Your task to perform on an android device: Open Reddit.com Image 0: 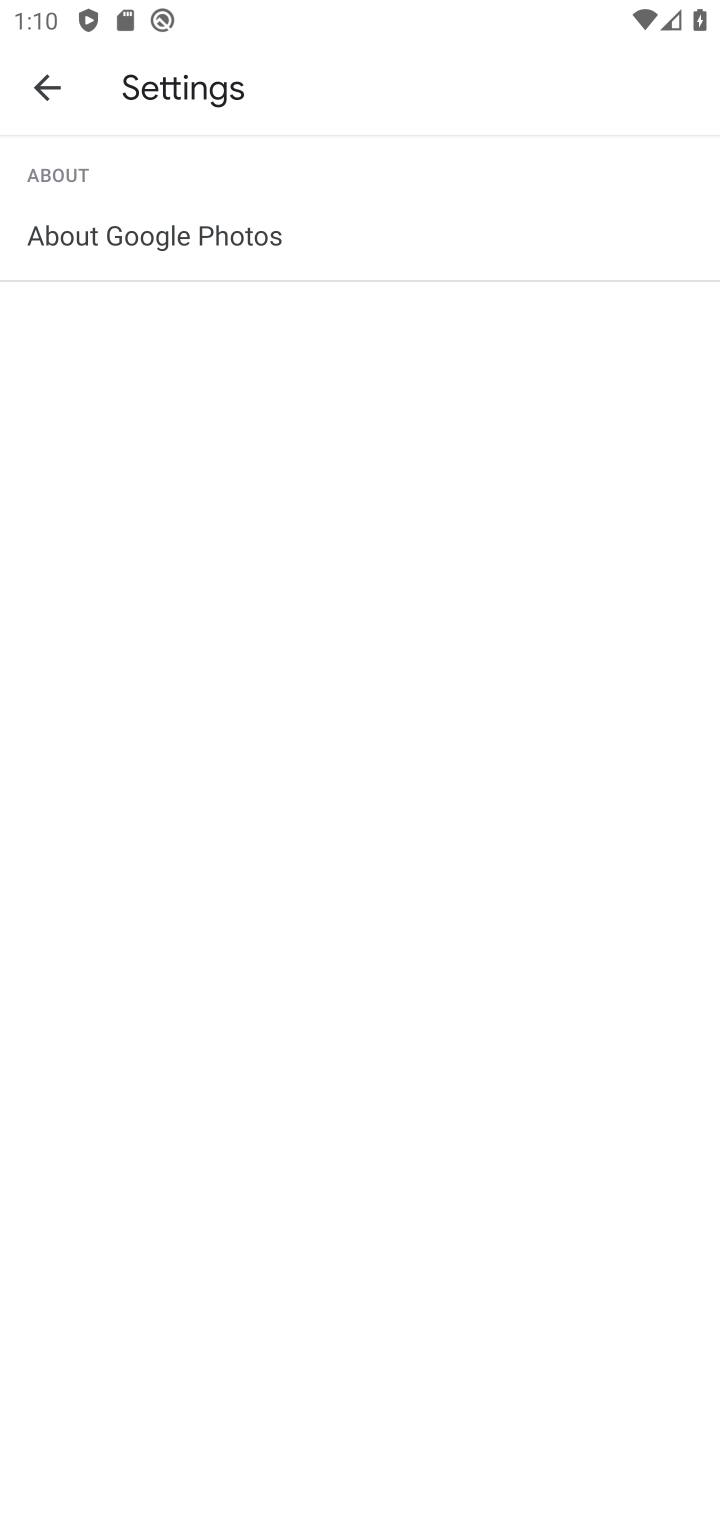
Step 0: press home button
Your task to perform on an android device: Open Reddit.com Image 1: 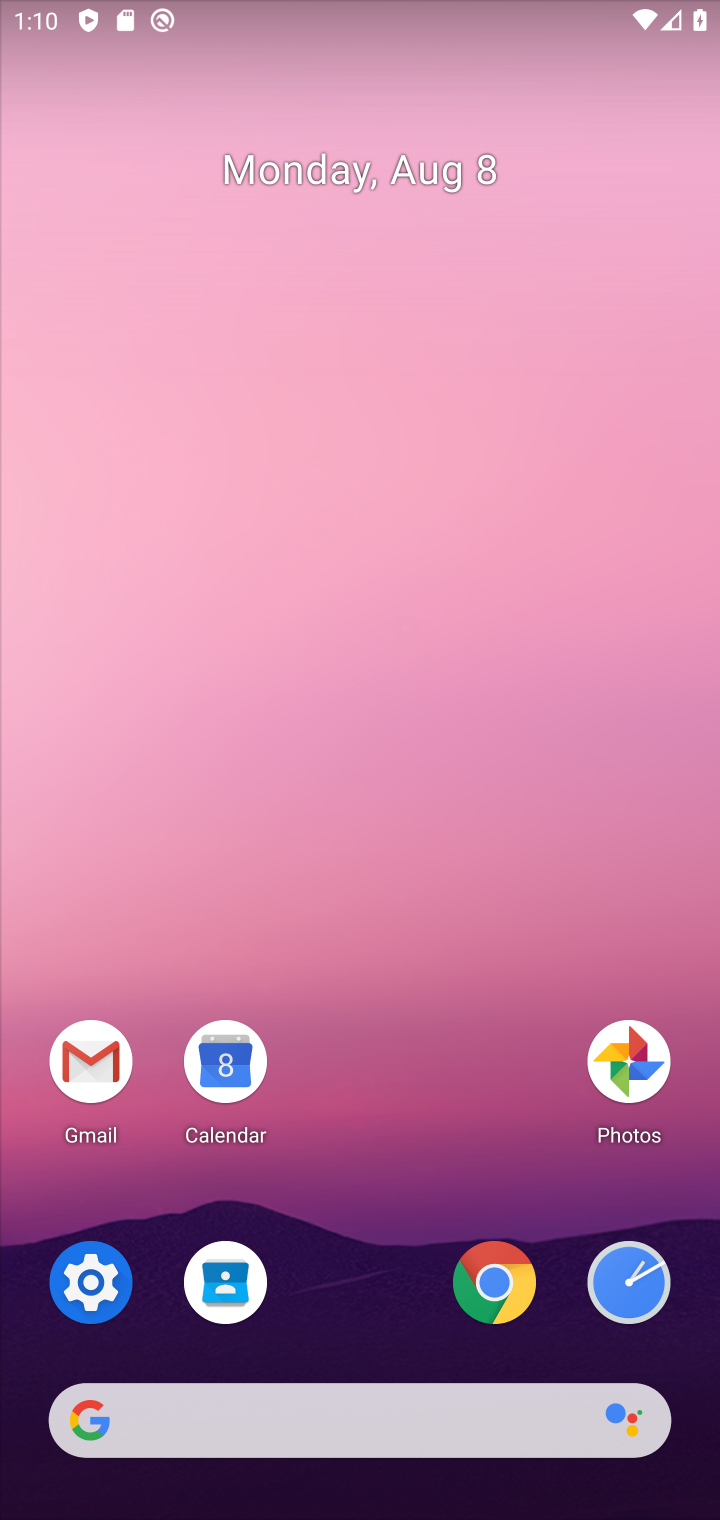
Step 1: click (492, 1270)
Your task to perform on an android device: Open Reddit.com Image 2: 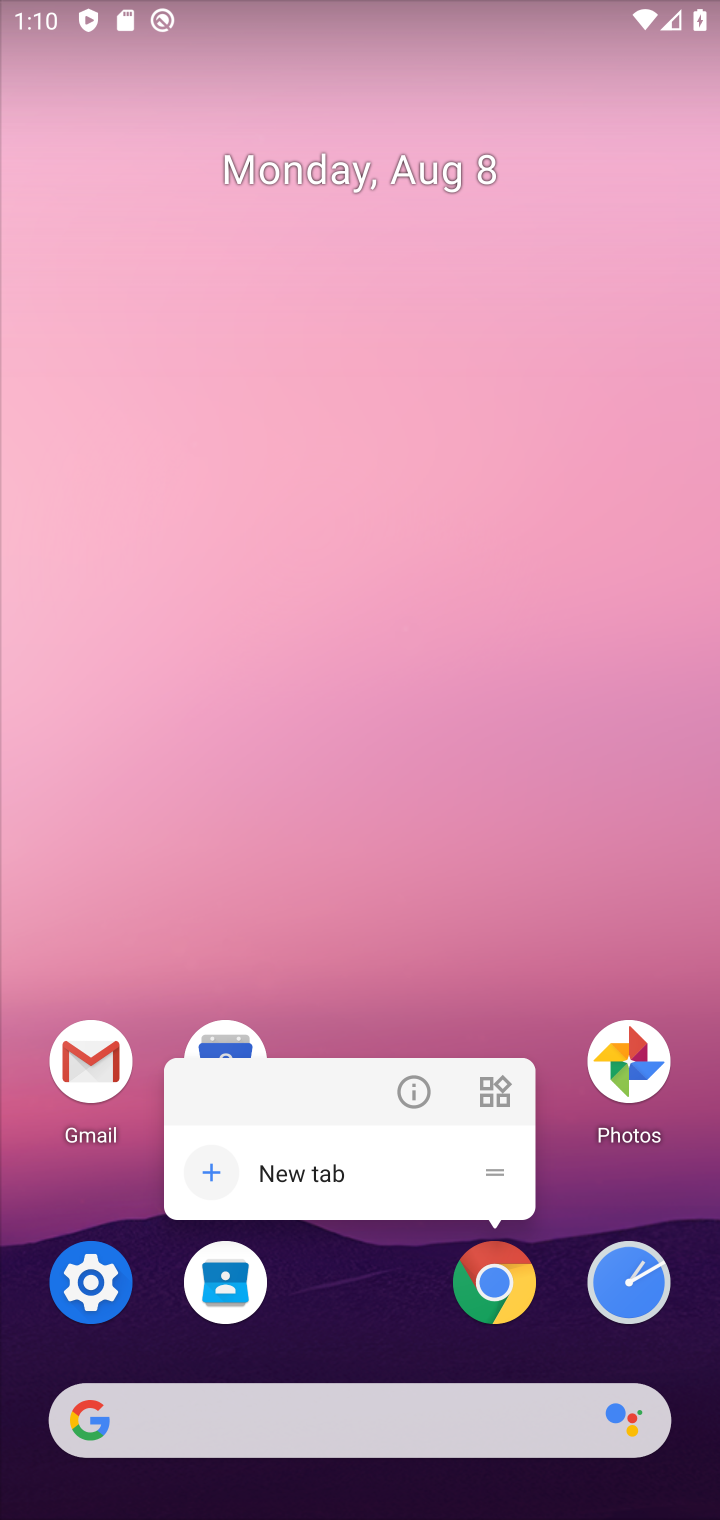
Step 2: click (503, 1299)
Your task to perform on an android device: Open Reddit.com Image 3: 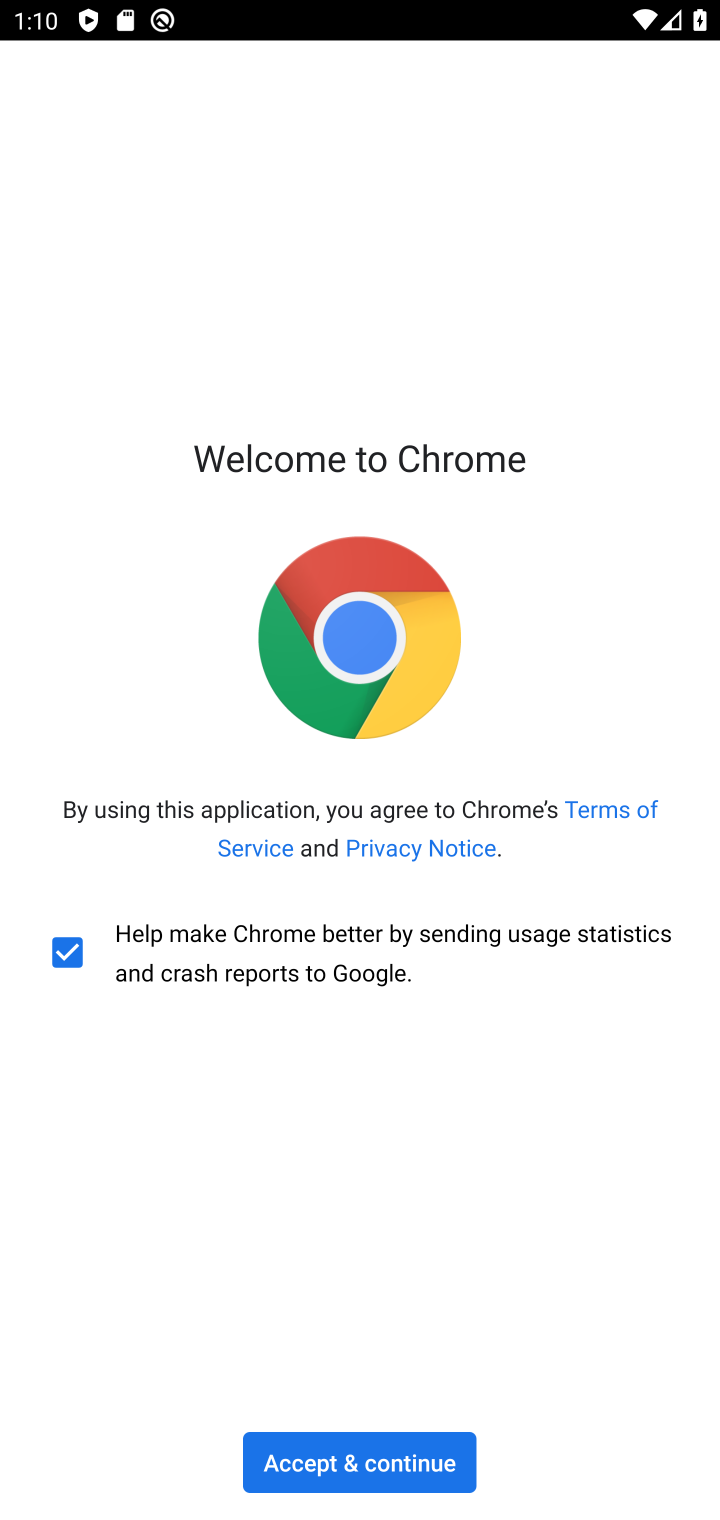
Step 3: click (338, 1448)
Your task to perform on an android device: Open Reddit.com Image 4: 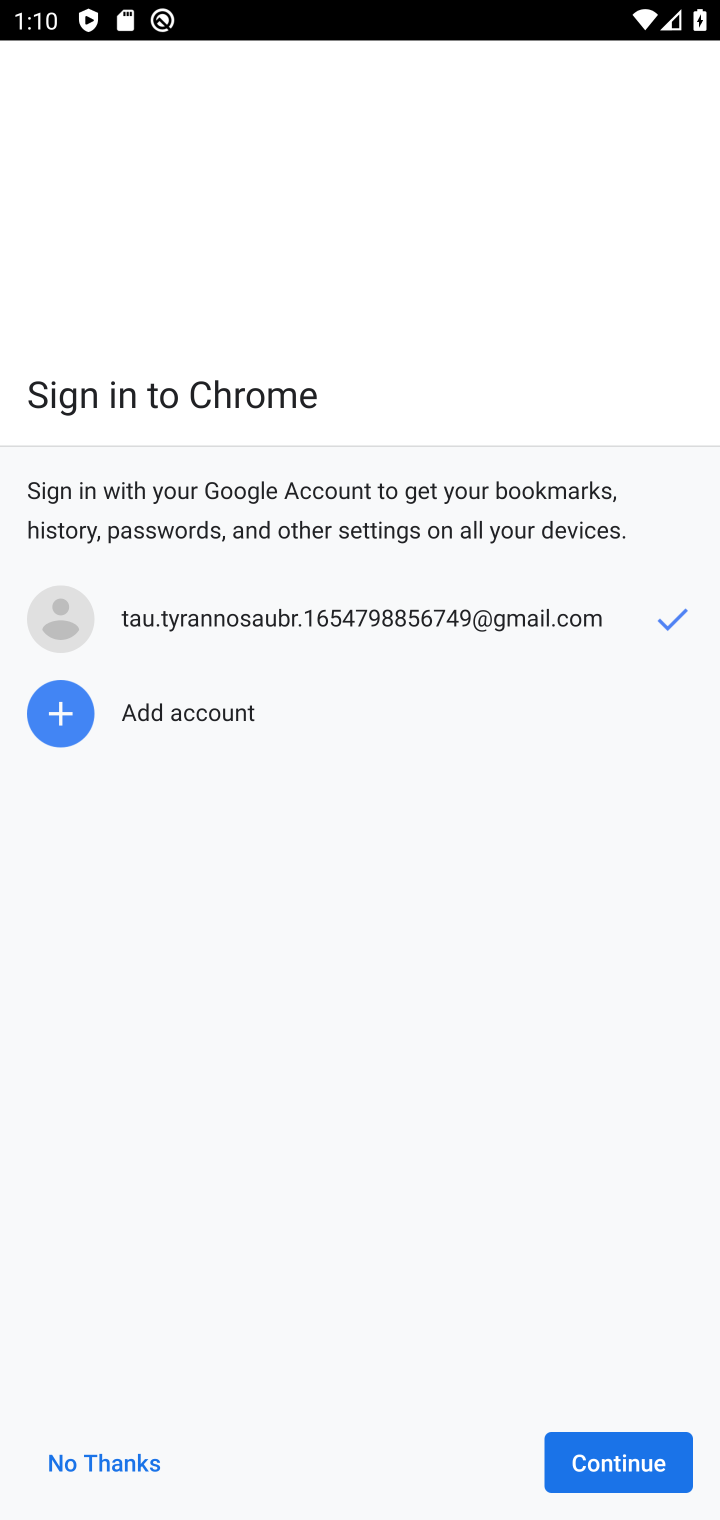
Step 4: click (640, 1460)
Your task to perform on an android device: Open Reddit.com Image 5: 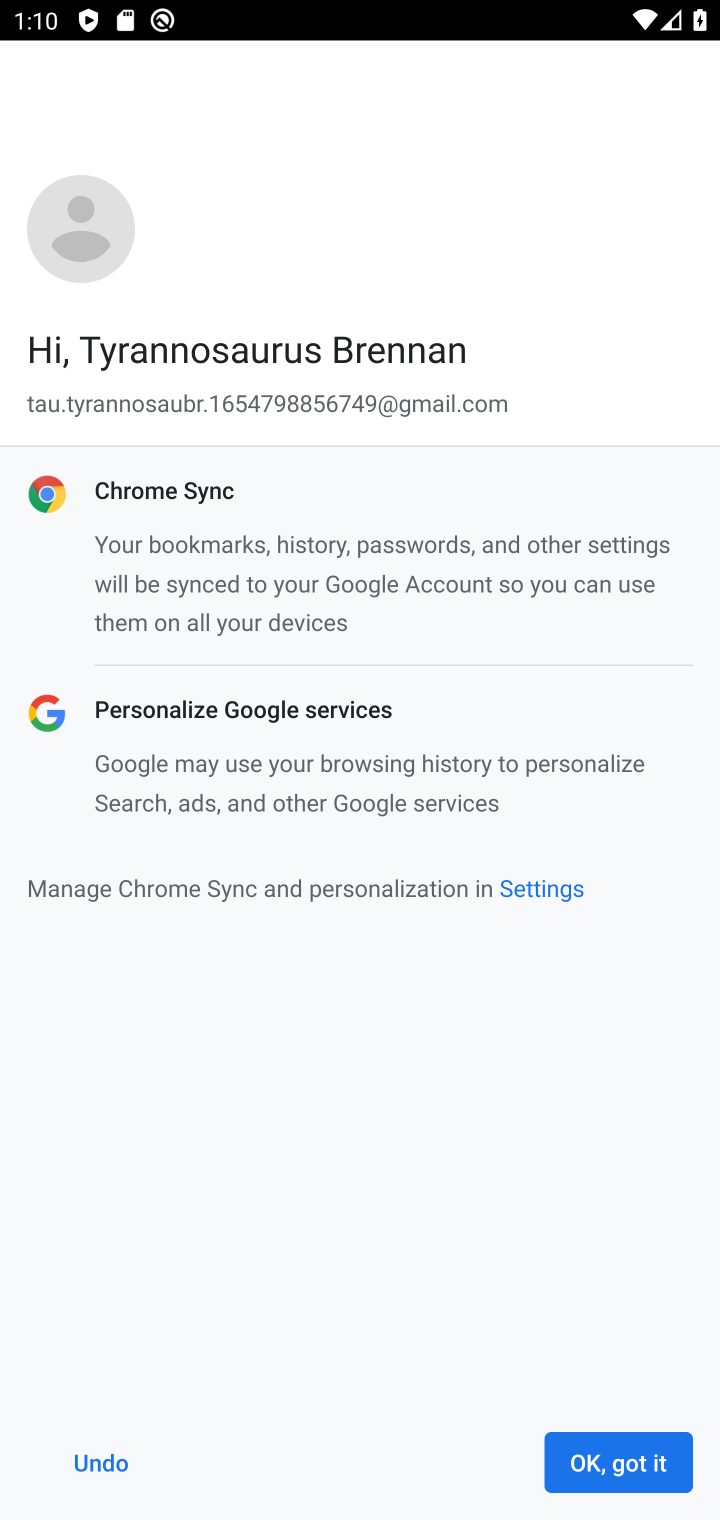
Step 5: click (633, 1456)
Your task to perform on an android device: Open Reddit.com Image 6: 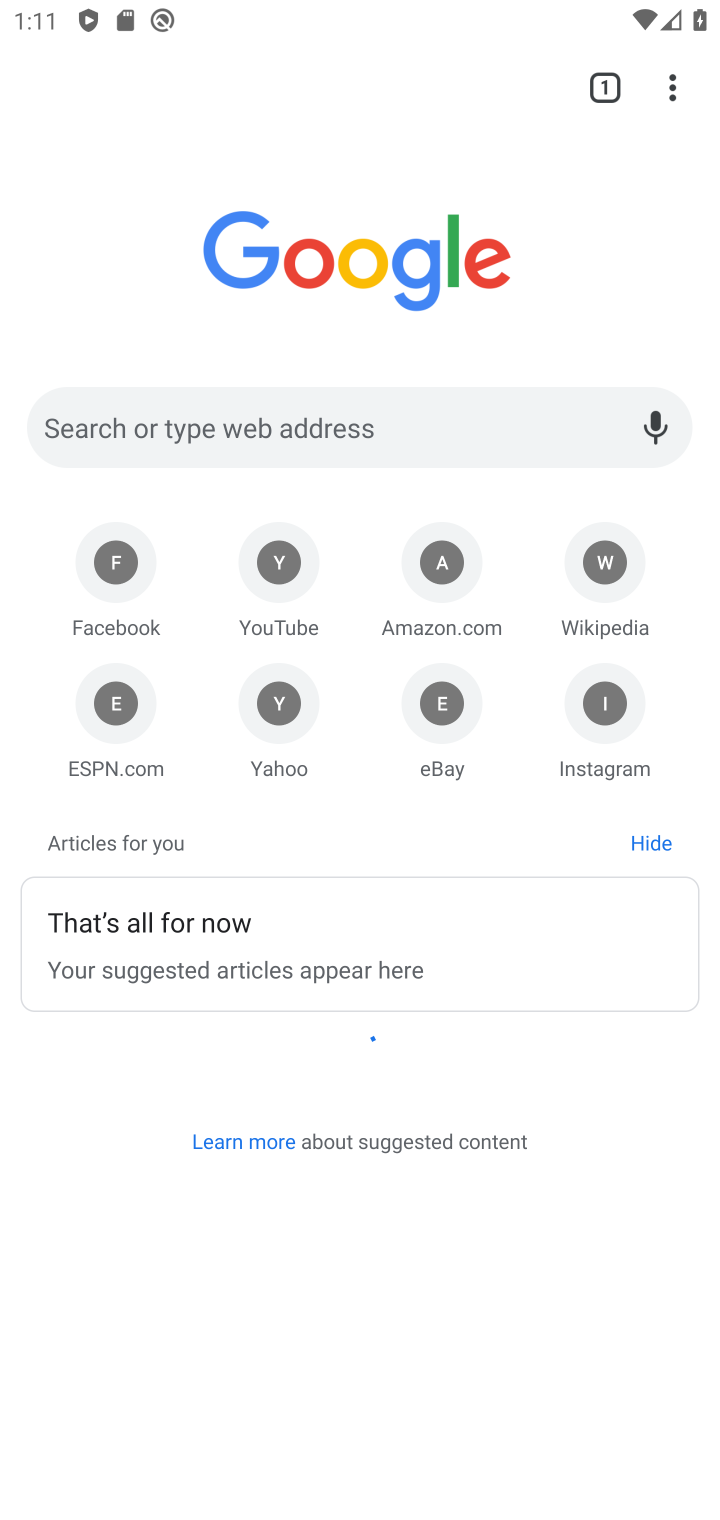
Step 6: click (337, 415)
Your task to perform on an android device: Open Reddit.com Image 7: 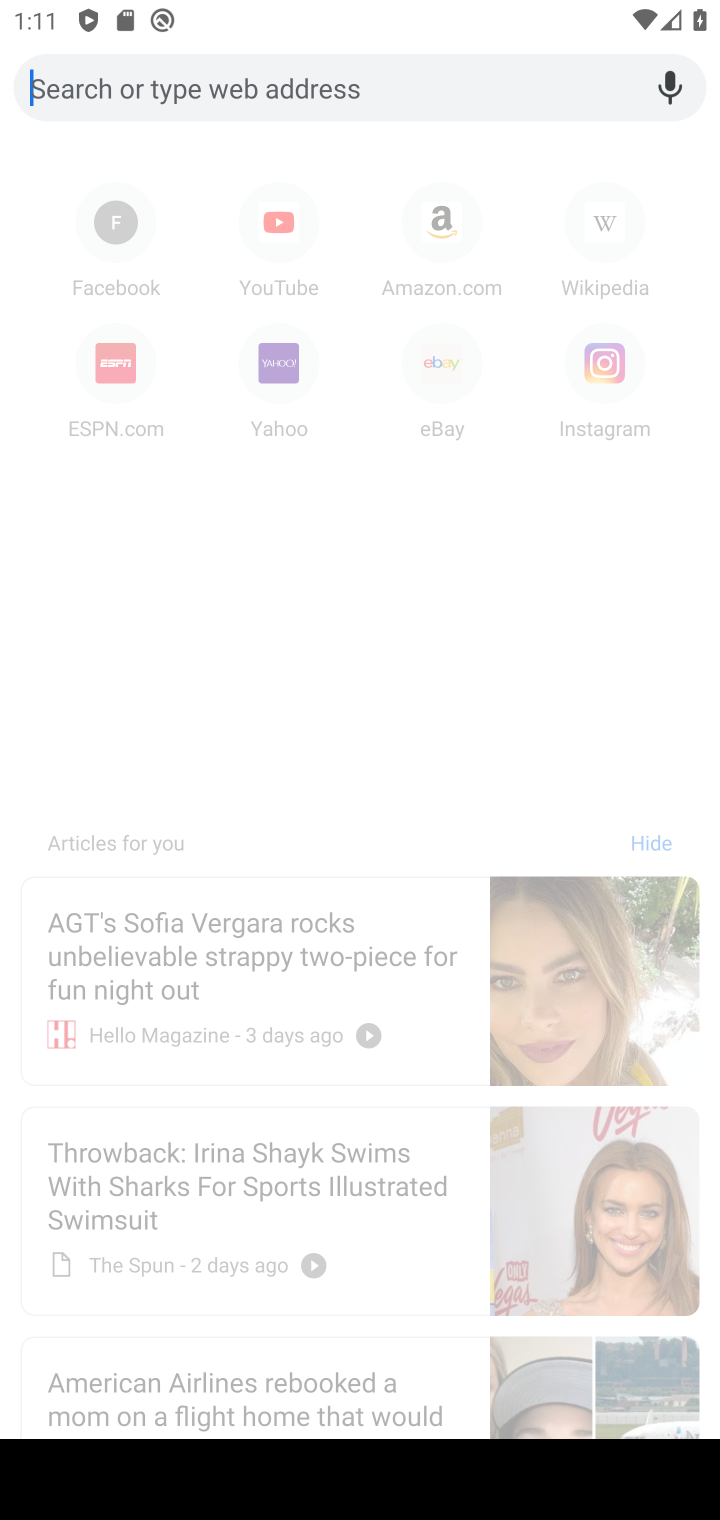
Step 7: type "reddit.com"
Your task to perform on an android device: Open Reddit.com Image 8: 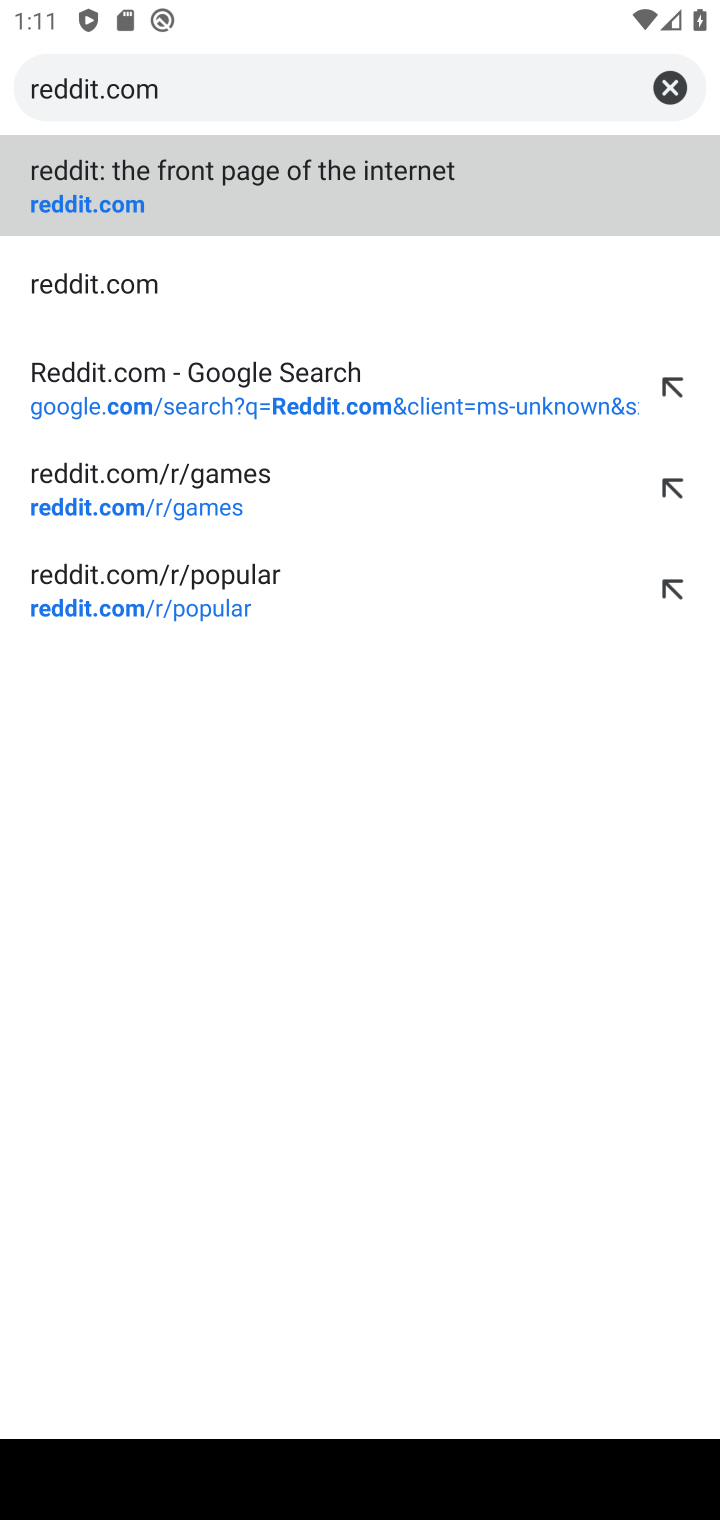
Step 8: click (170, 161)
Your task to perform on an android device: Open Reddit.com Image 9: 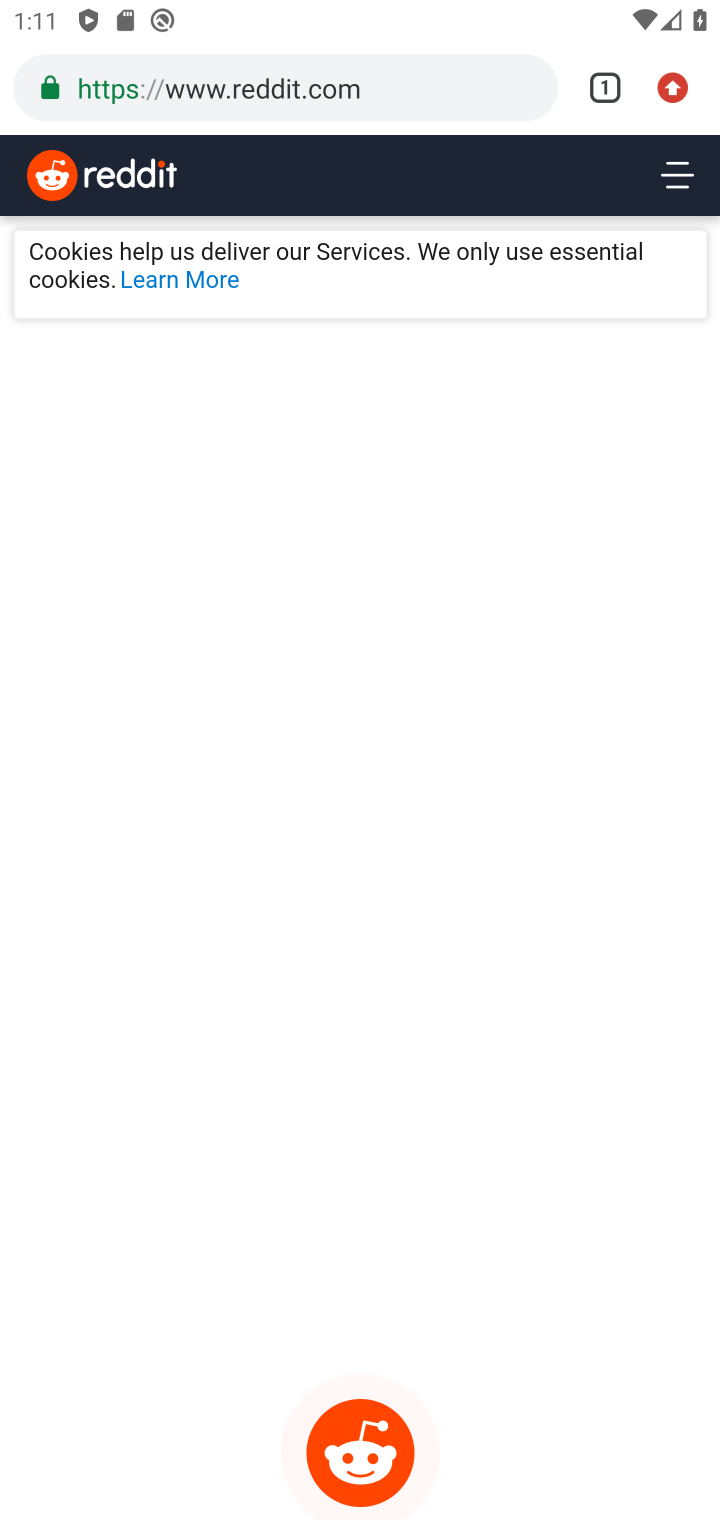
Step 9: task complete